Your task to perform on an android device: What's the weather today? Image 0: 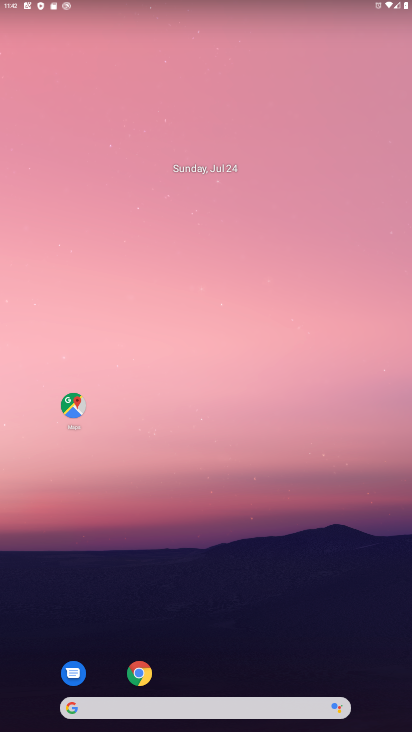
Step 0: drag from (342, 617) to (296, 117)
Your task to perform on an android device: What's the weather today? Image 1: 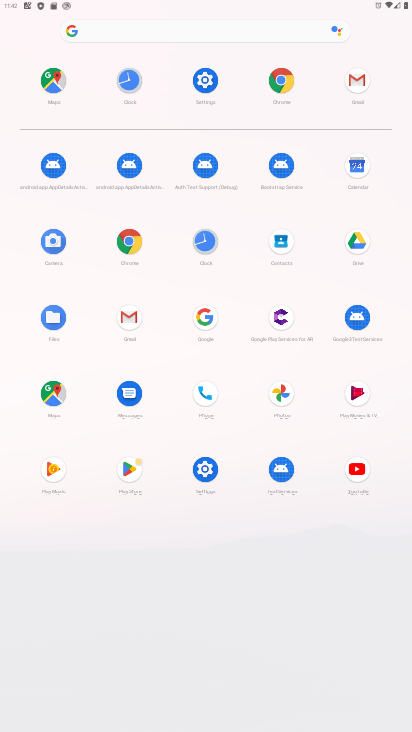
Step 1: click (283, 81)
Your task to perform on an android device: What's the weather today? Image 2: 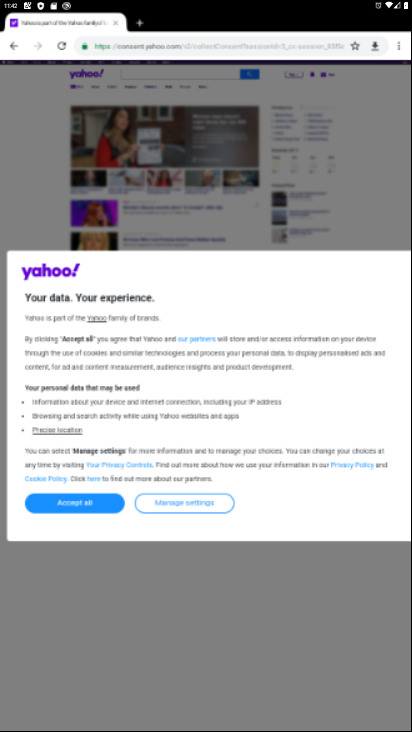
Step 2: click (279, 57)
Your task to perform on an android device: What's the weather today? Image 3: 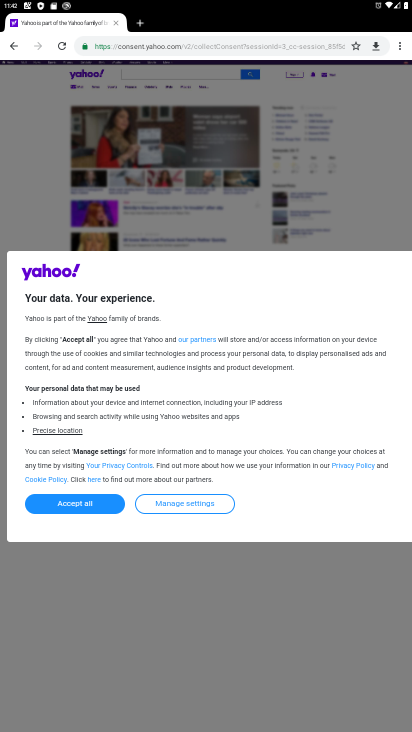
Step 3: click (290, 47)
Your task to perform on an android device: What's the weather today? Image 4: 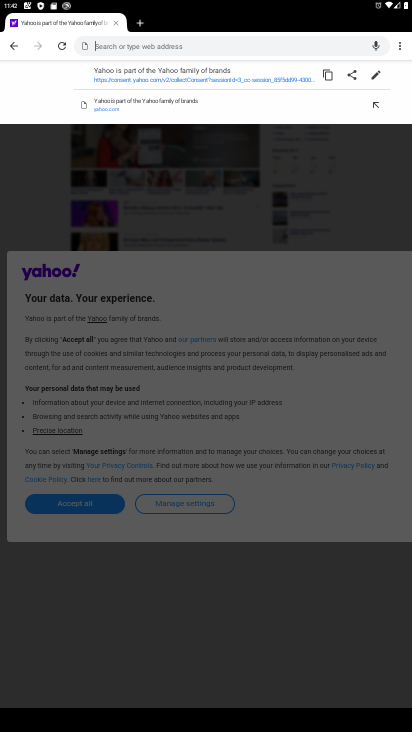
Step 4: type "weather"
Your task to perform on an android device: What's the weather today? Image 5: 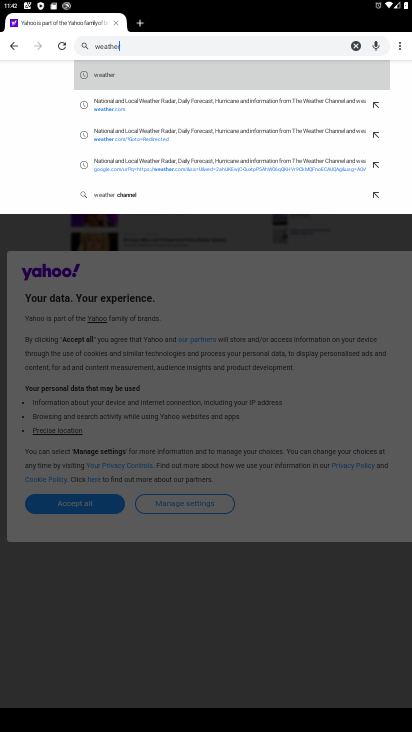
Step 5: click (97, 77)
Your task to perform on an android device: What's the weather today? Image 6: 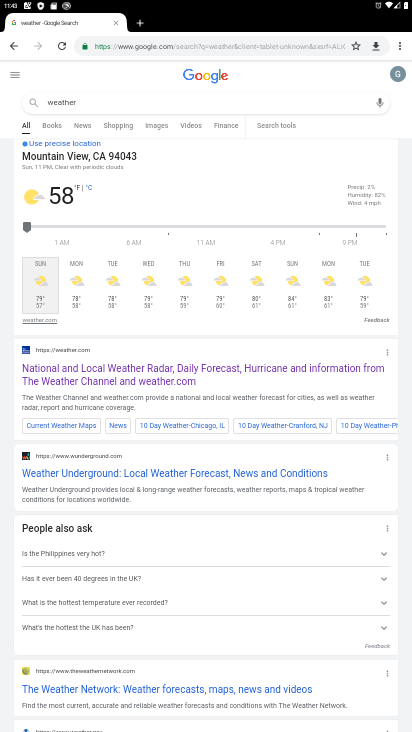
Step 6: task complete